Your task to perform on an android device: delete browsing data in the chrome app Image 0: 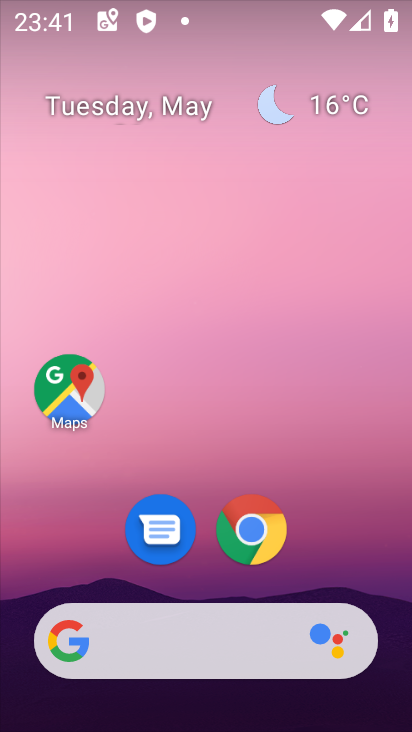
Step 0: click (273, 541)
Your task to perform on an android device: delete browsing data in the chrome app Image 1: 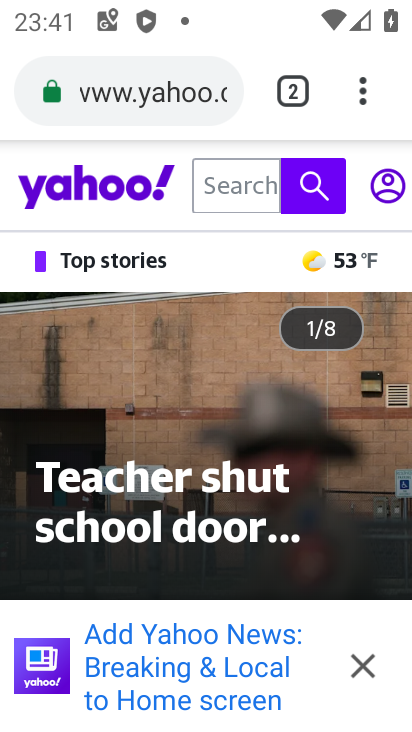
Step 1: drag from (378, 107) to (204, 564)
Your task to perform on an android device: delete browsing data in the chrome app Image 2: 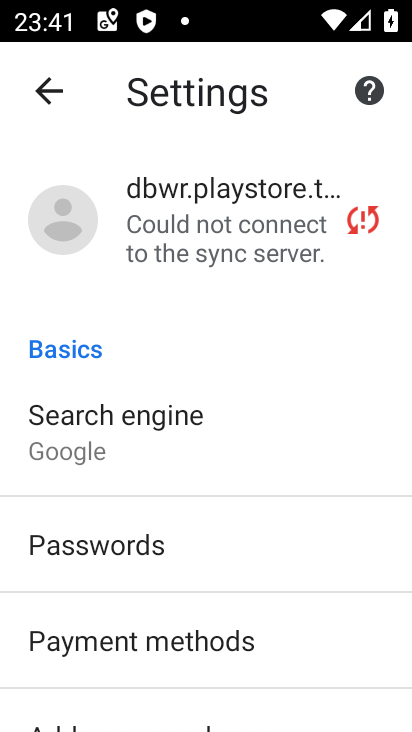
Step 2: drag from (215, 678) to (314, 258)
Your task to perform on an android device: delete browsing data in the chrome app Image 3: 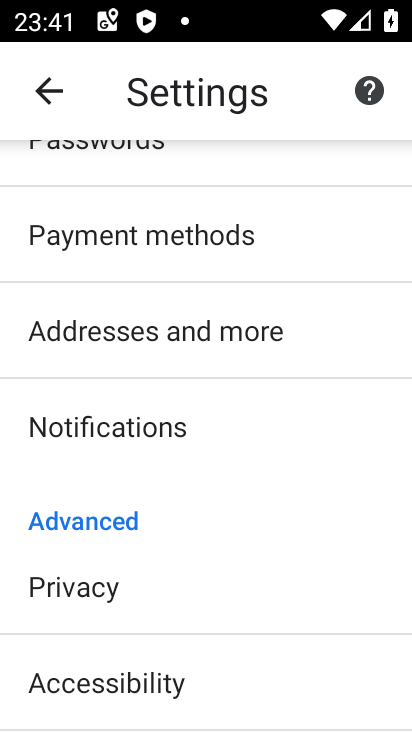
Step 3: click (113, 587)
Your task to perform on an android device: delete browsing data in the chrome app Image 4: 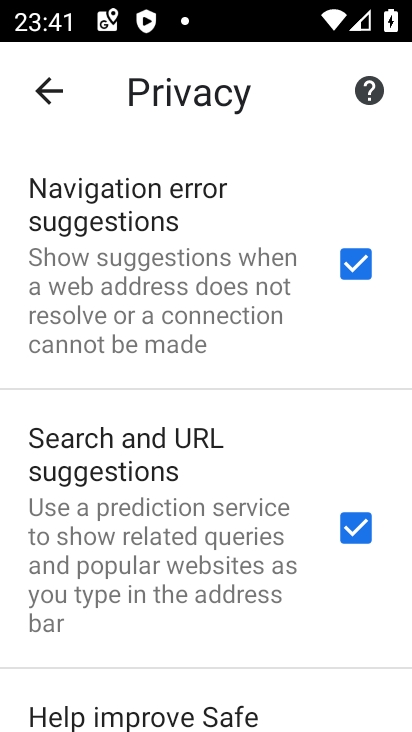
Step 4: drag from (163, 627) to (259, 112)
Your task to perform on an android device: delete browsing data in the chrome app Image 5: 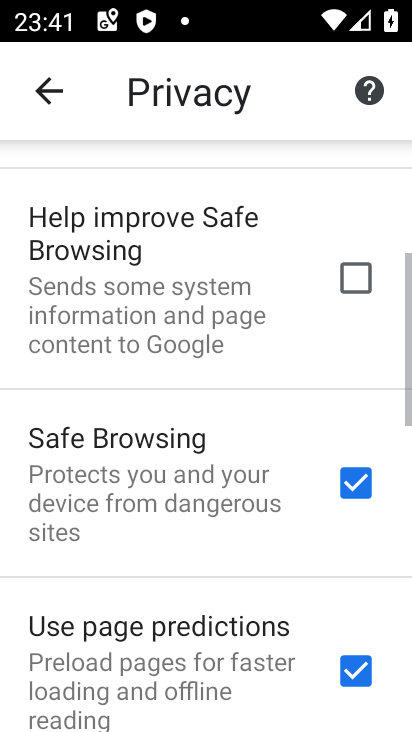
Step 5: drag from (164, 588) to (274, 142)
Your task to perform on an android device: delete browsing data in the chrome app Image 6: 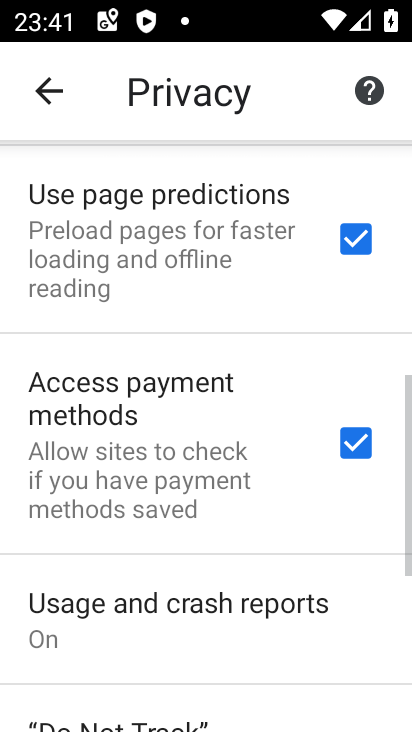
Step 6: drag from (142, 599) to (280, 96)
Your task to perform on an android device: delete browsing data in the chrome app Image 7: 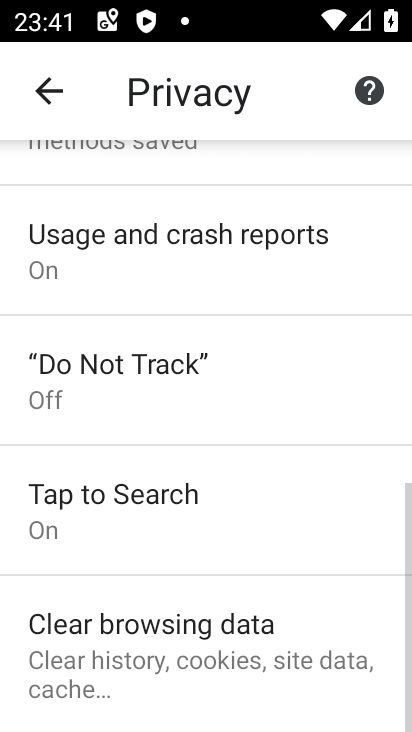
Step 7: click (142, 648)
Your task to perform on an android device: delete browsing data in the chrome app Image 8: 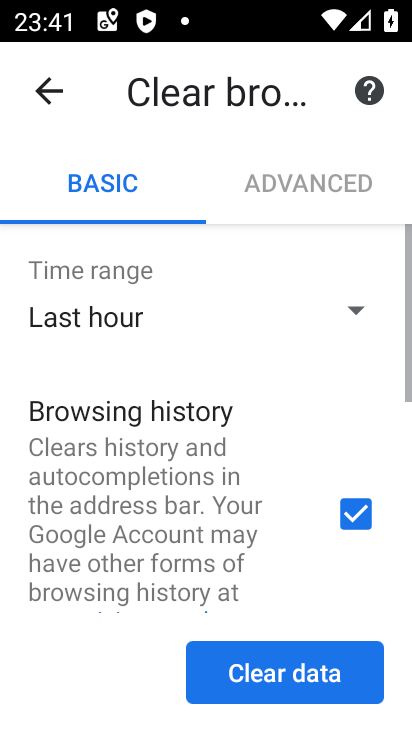
Step 8: drag from (41, 645) to (186, 154)
Your task to perform on an android device: delete browsing data in the chrome app Image 9: 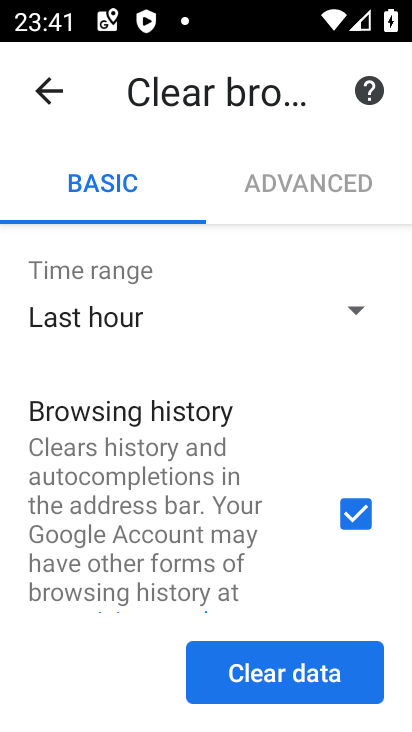
Step 9: drag from (140, 572) to (287, 154)
Your task to perform on an android device: delete browsing data in the chrome app Image 10: 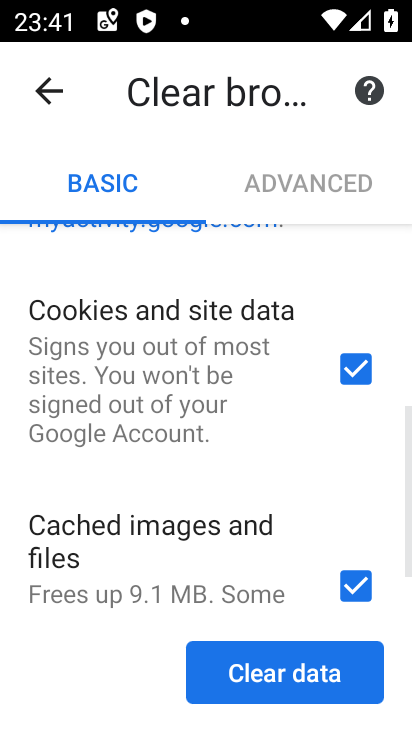
Step 10: drag from (146, 524) to (265, 166)
Your task to perform on an android device: delete browsing data in the chrome app Image 11: 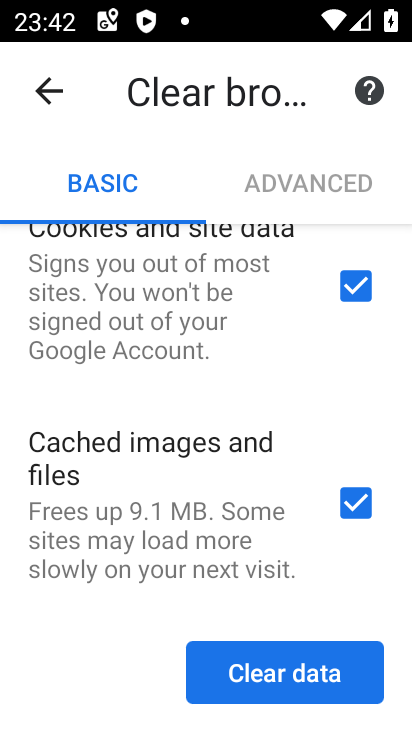
Step 11: click (310, 700)
Your task to perform on an android device: delete browsing data in the chrome app Image 12: 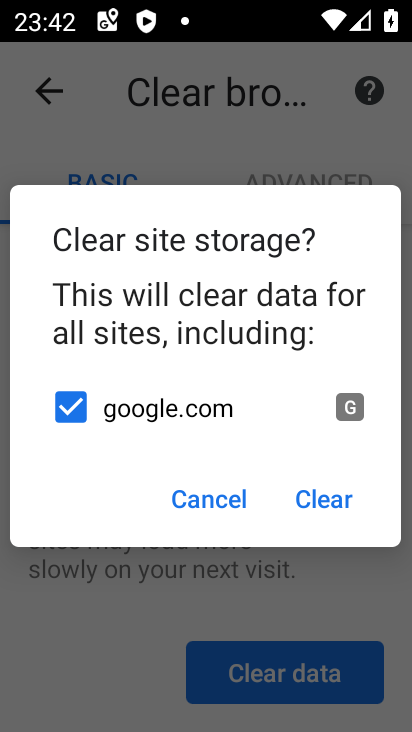
Step 12: click (346, 509)
Your task to perform on an android device: delete browsing data in the chrome app Image 13: 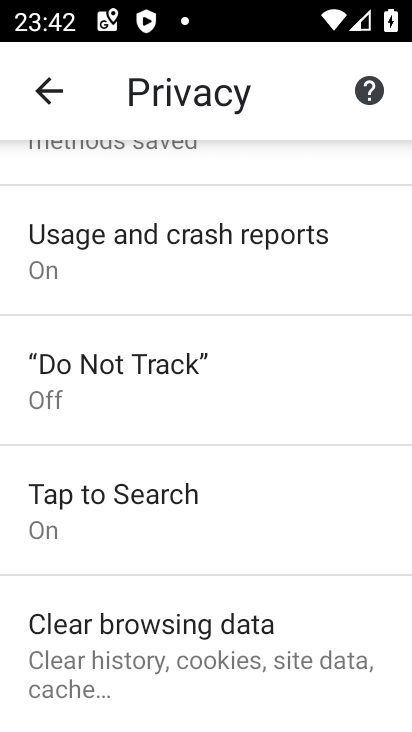
Step 13: task complete